Your task to perform on an android device: snooze an email in the gmail app Image 0: 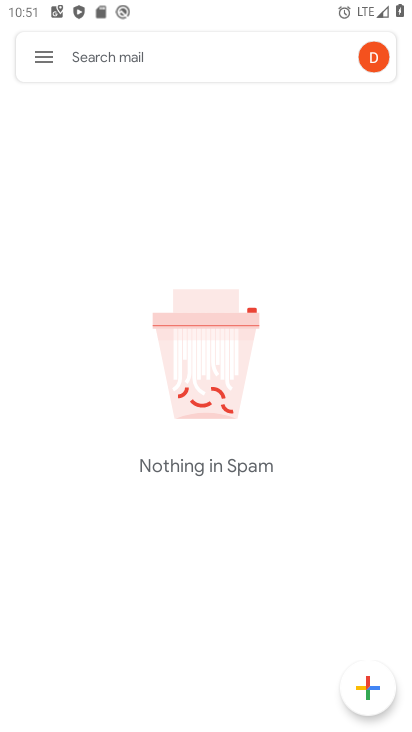
Step 0: click (50, 68)
Your task to perform on an android device: snooze an email in the gmail app Image 1: 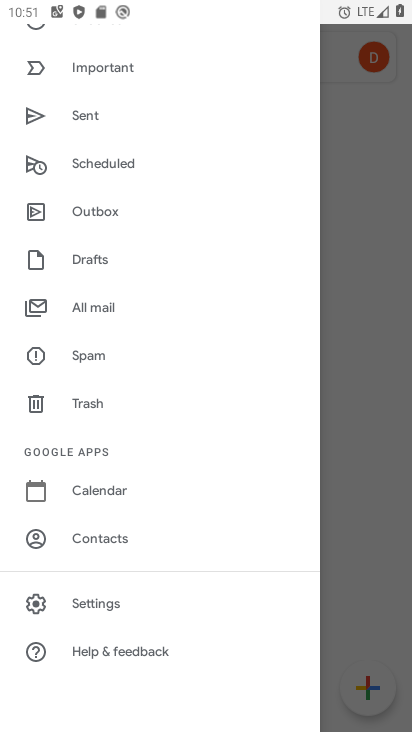
Step 1: drag from (120, 222) to (192, 628)
Your task to perform on an android device: snooze an email in the gmail app Image 2: 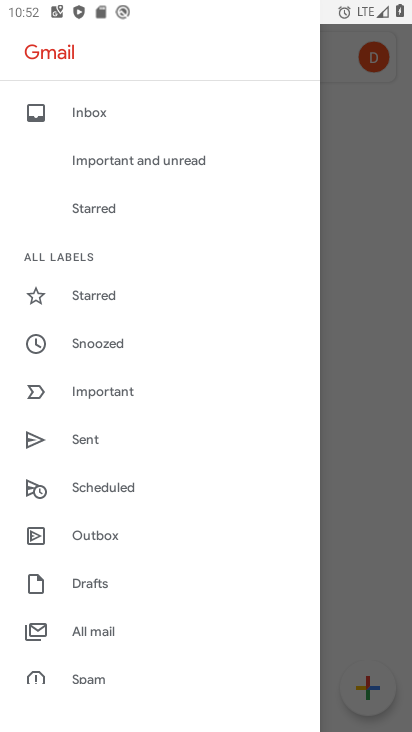
Step 2: click (90, 106)
Your task to perform on an android device: snooze an email in the gmail app Image 3: 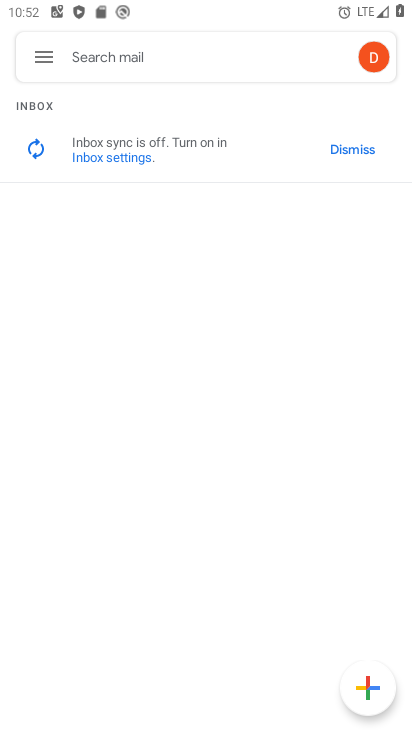
Step 3: task complete